Your task to perform on an android device: open app "Venmo" (install if not already installed) and go to login screen Image 0: 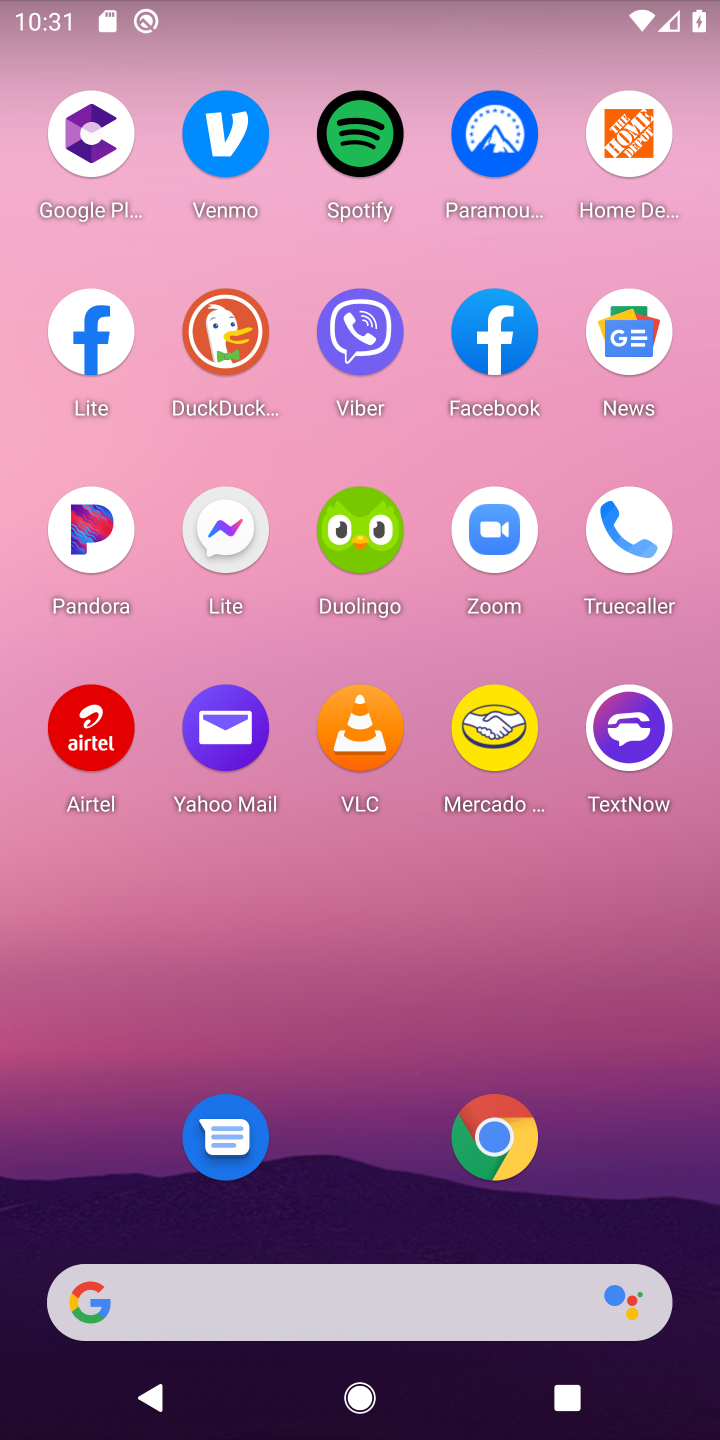
Step 0: press home button
Your task to perform on an android device: open app "Venmo" (install if not already installed) and go to login screen Image 1: 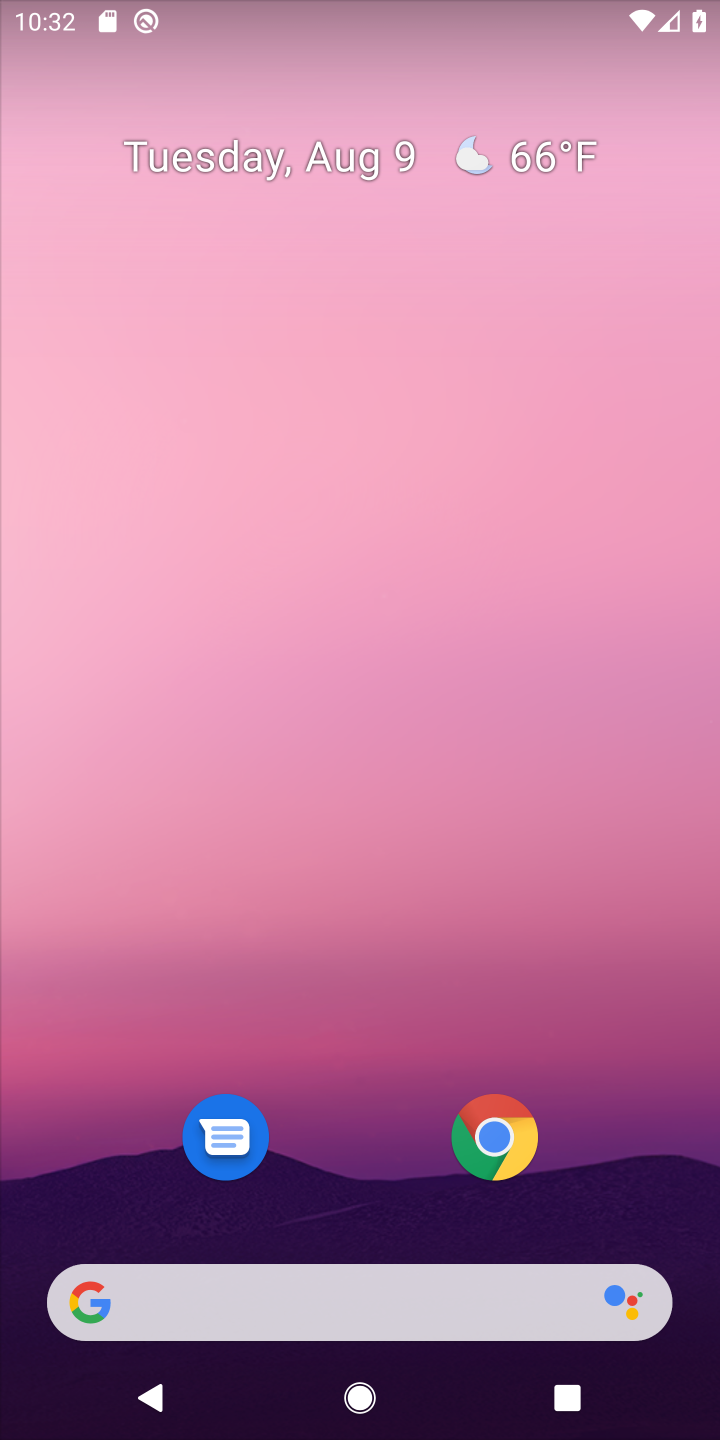
Step 1: drag from (390, 813) to (341, 254)
Your task to perform on an android device: open app "Venmo" (install if not already installed) and go to login screen Image 2: 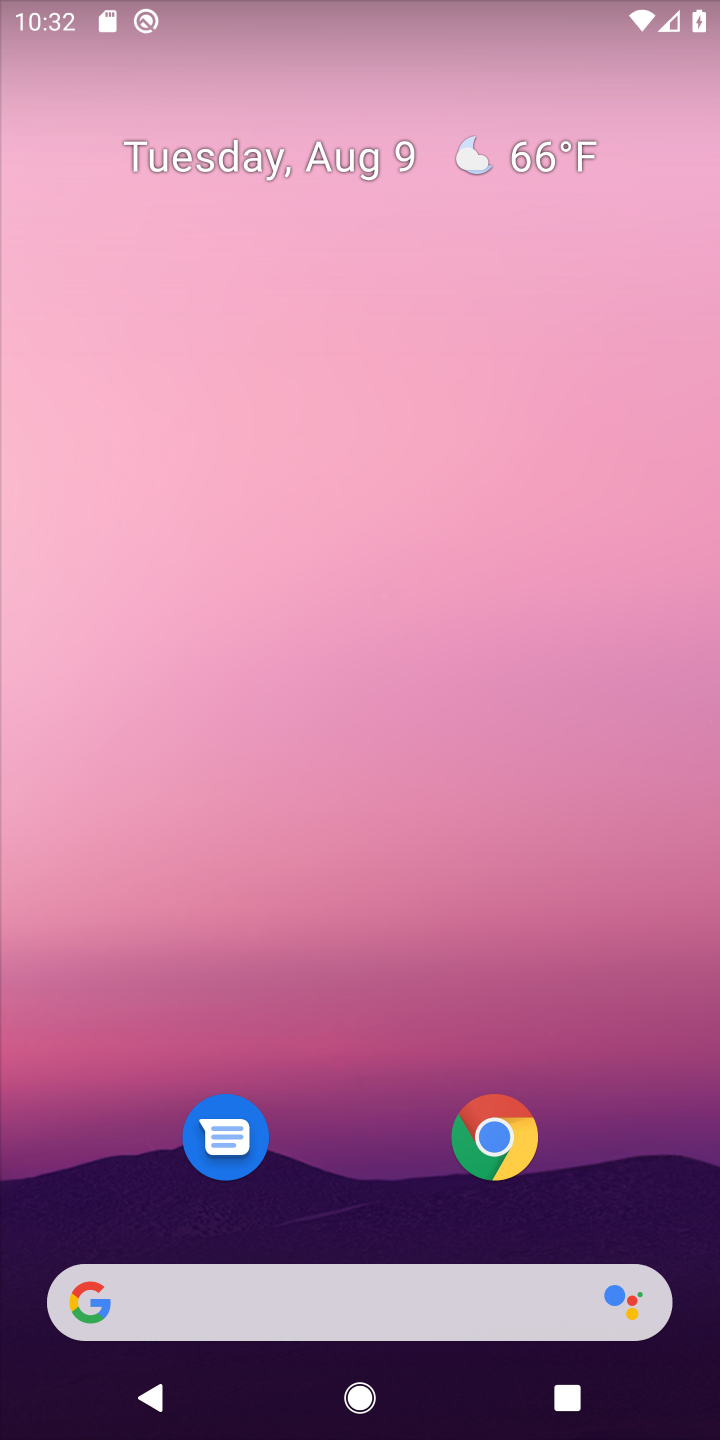
Step 2: drag from (350, 1142) to (331, 148)
Your task to perform on an android device: open app "Venmo" (install if not already installed) and go to login screen Image 3: 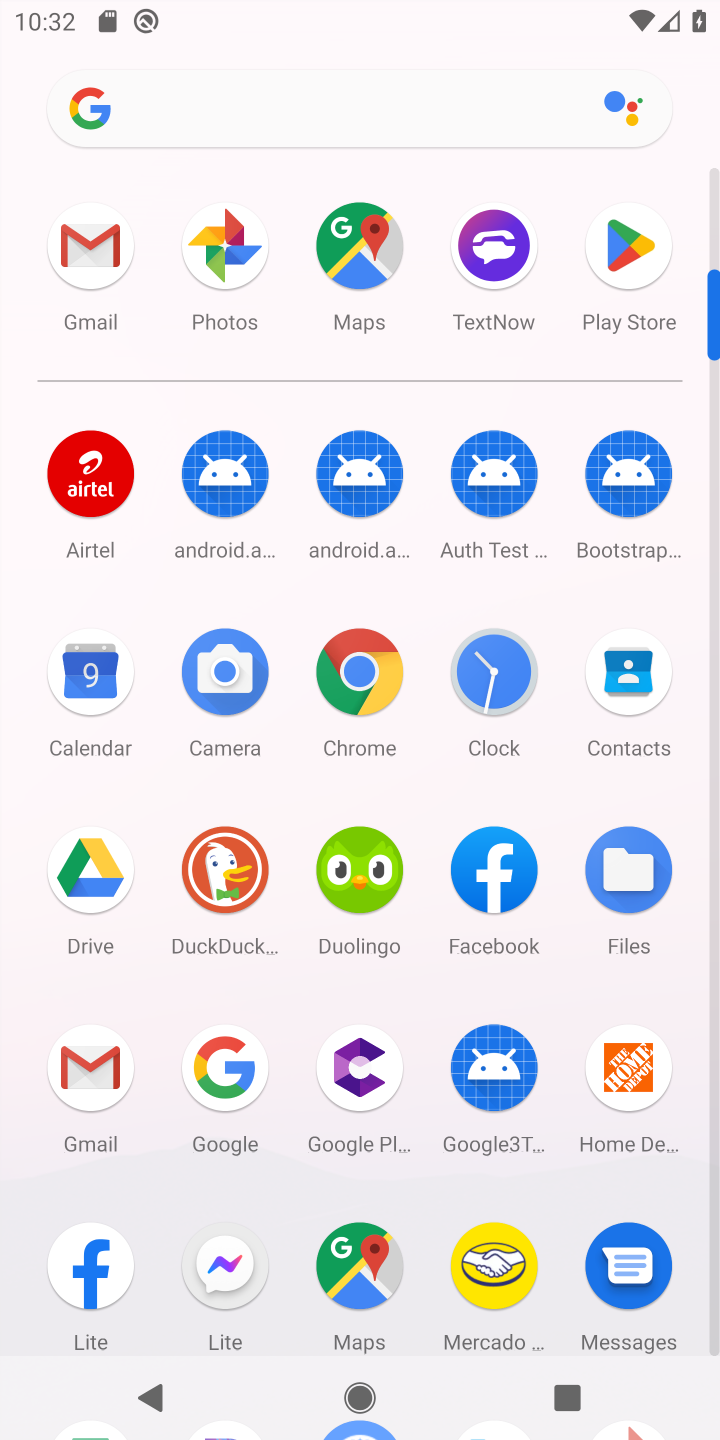
Step 3: click (631, 238)
Your task to perform on an android device: open app "Venmo" (install if not already installed) and go to login screen Image 4: 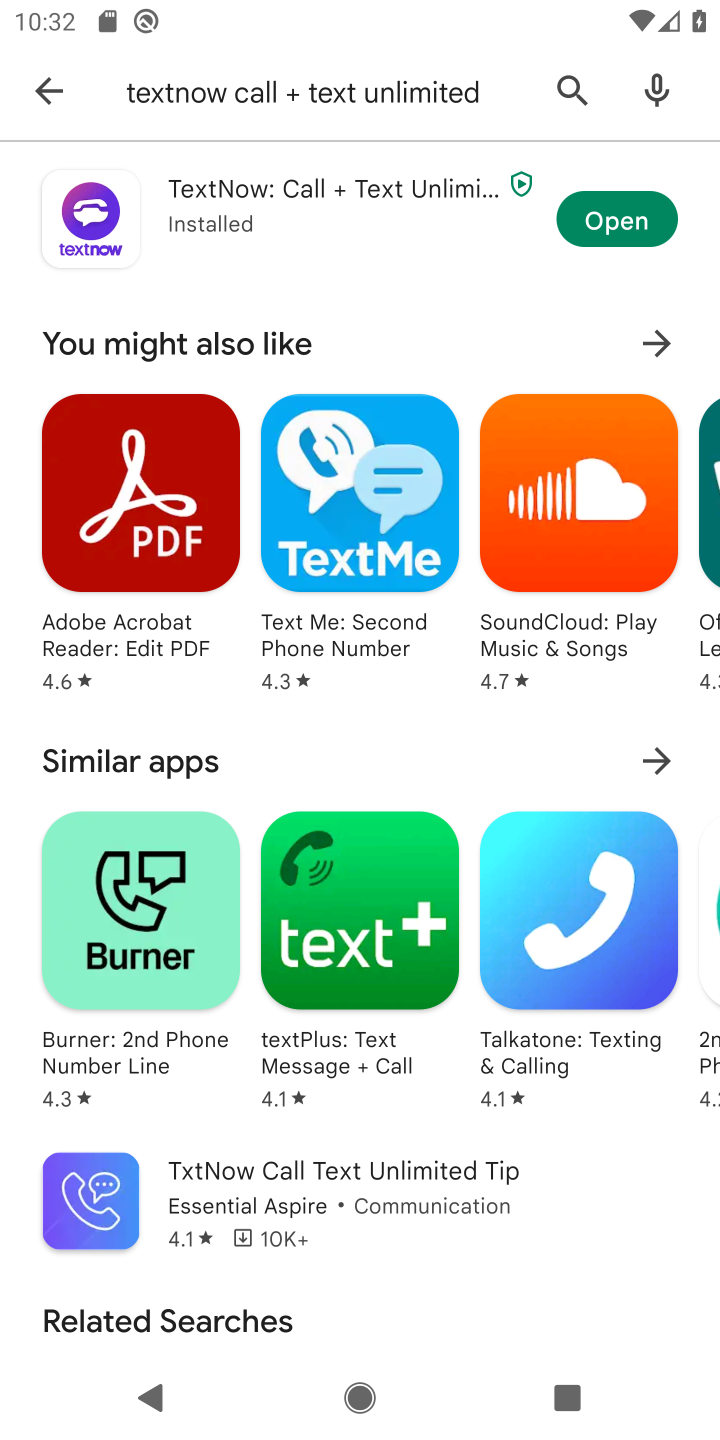
Step 4: click (565, 80)
Your task to perform on an android device: open app "Venmo" (install if not already installed) and go to login screen Image 5: 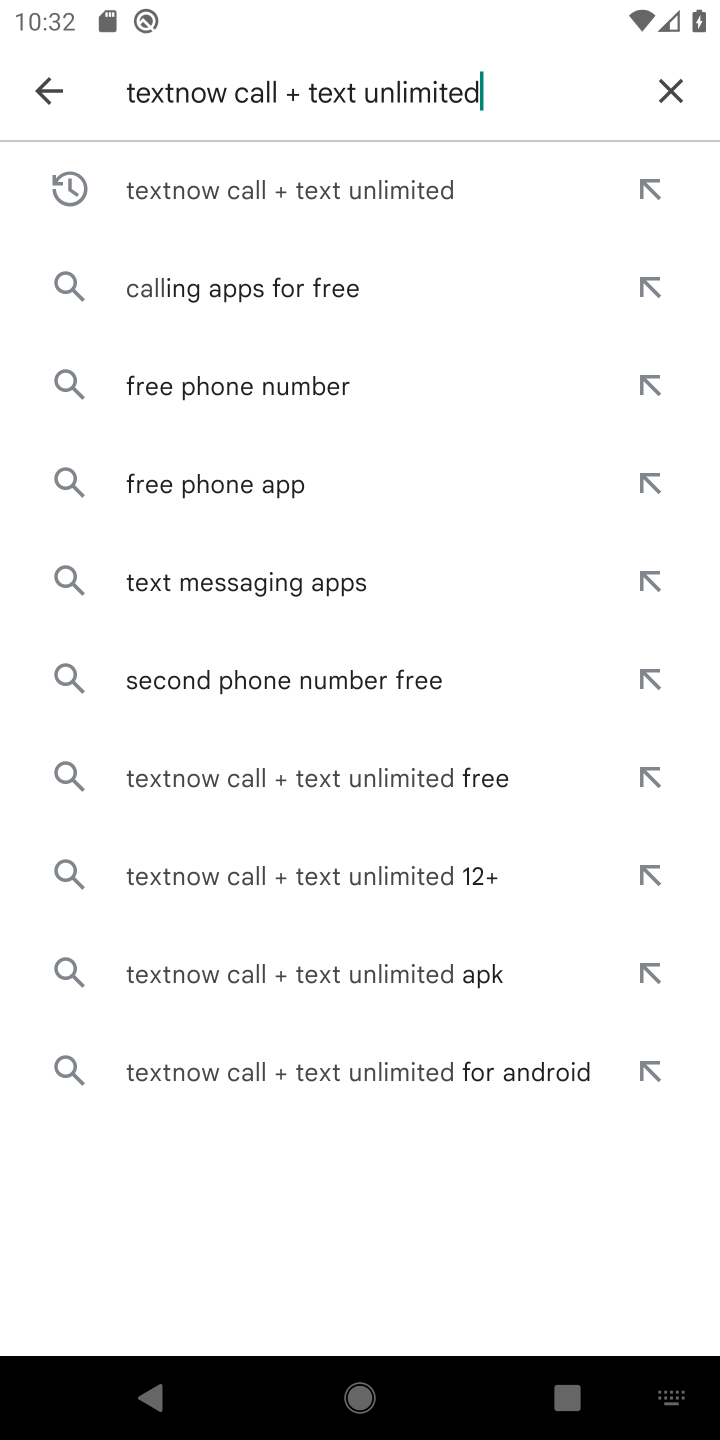
Step 5: click (658, 83)
Your task to perform on an android device: open app "Venmo" (install if not already installed) and go to login screen Image 6: 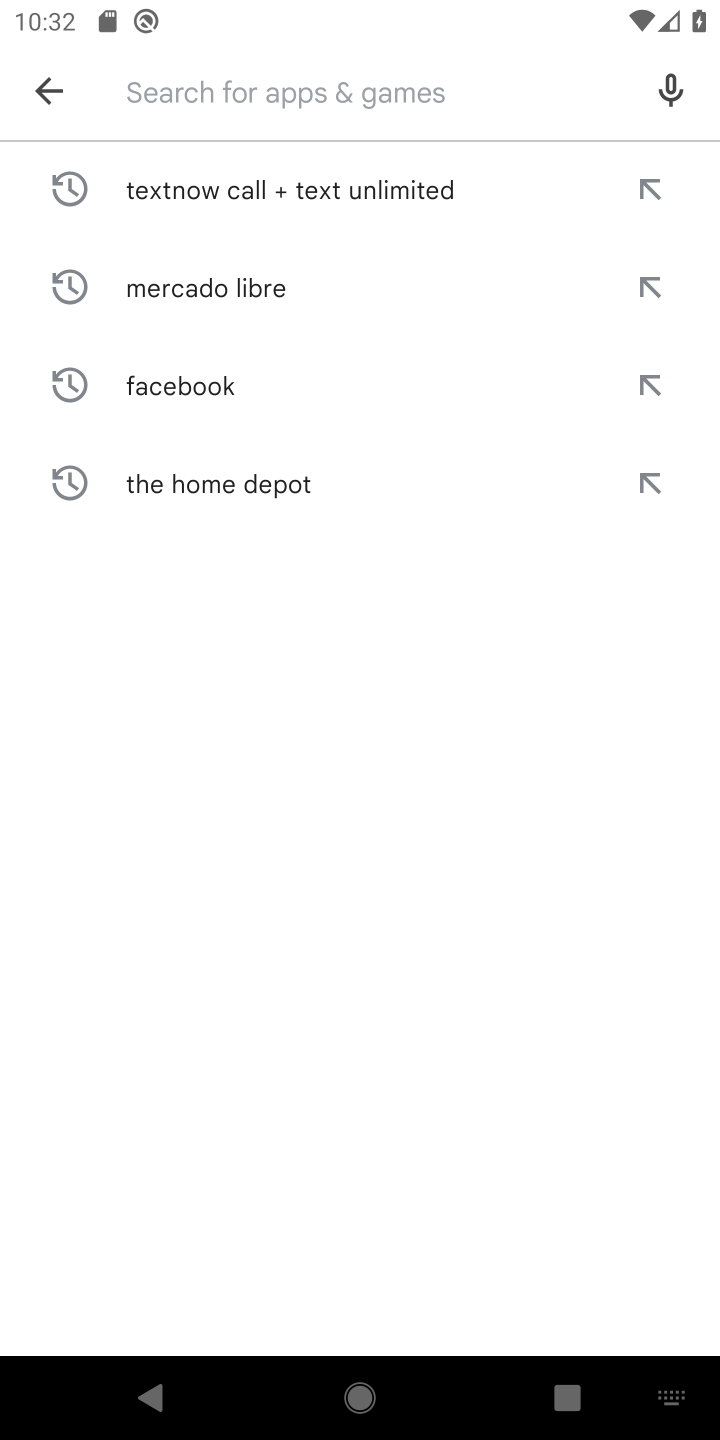
Step 6: type "Venmo"
Your task to perform on an android device: open app "Venmo" (install if not already installed) and go to login screen Image 7: 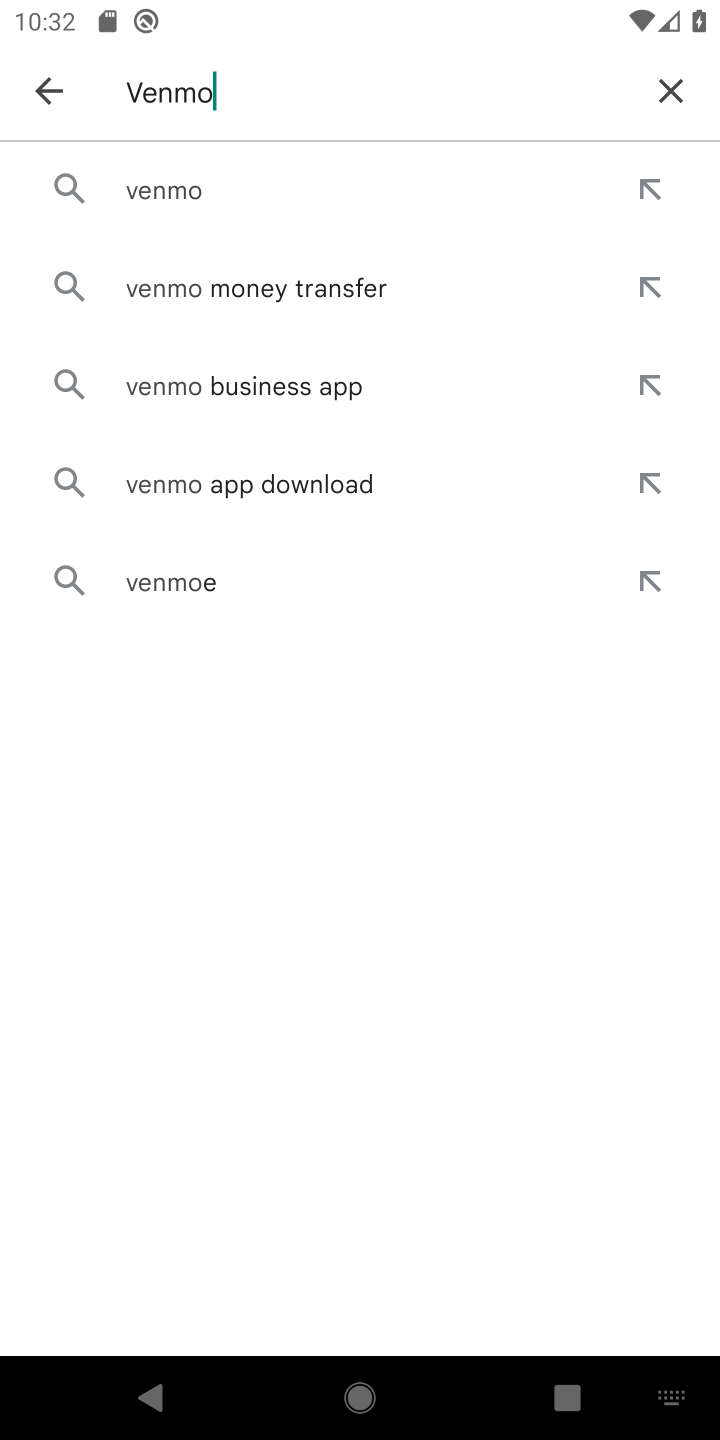
Step 7: type ""
Your task to perform on an android device: open app "Venmo" (install if not already installed) and go to login screen Image 8: 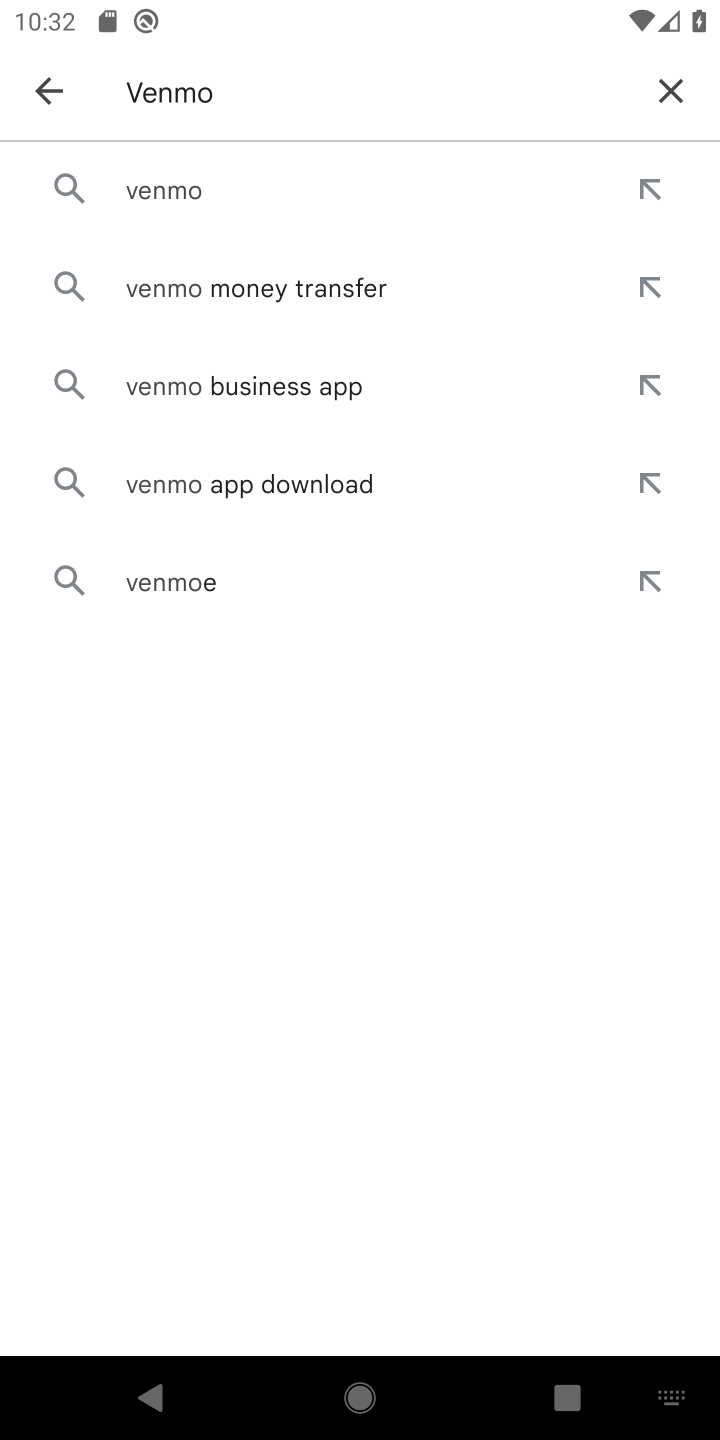
Step 8: click (151, 188)
Your task to perform on an android device: open app "Venmo" (install if not already installed) and go to login screen Image 9: 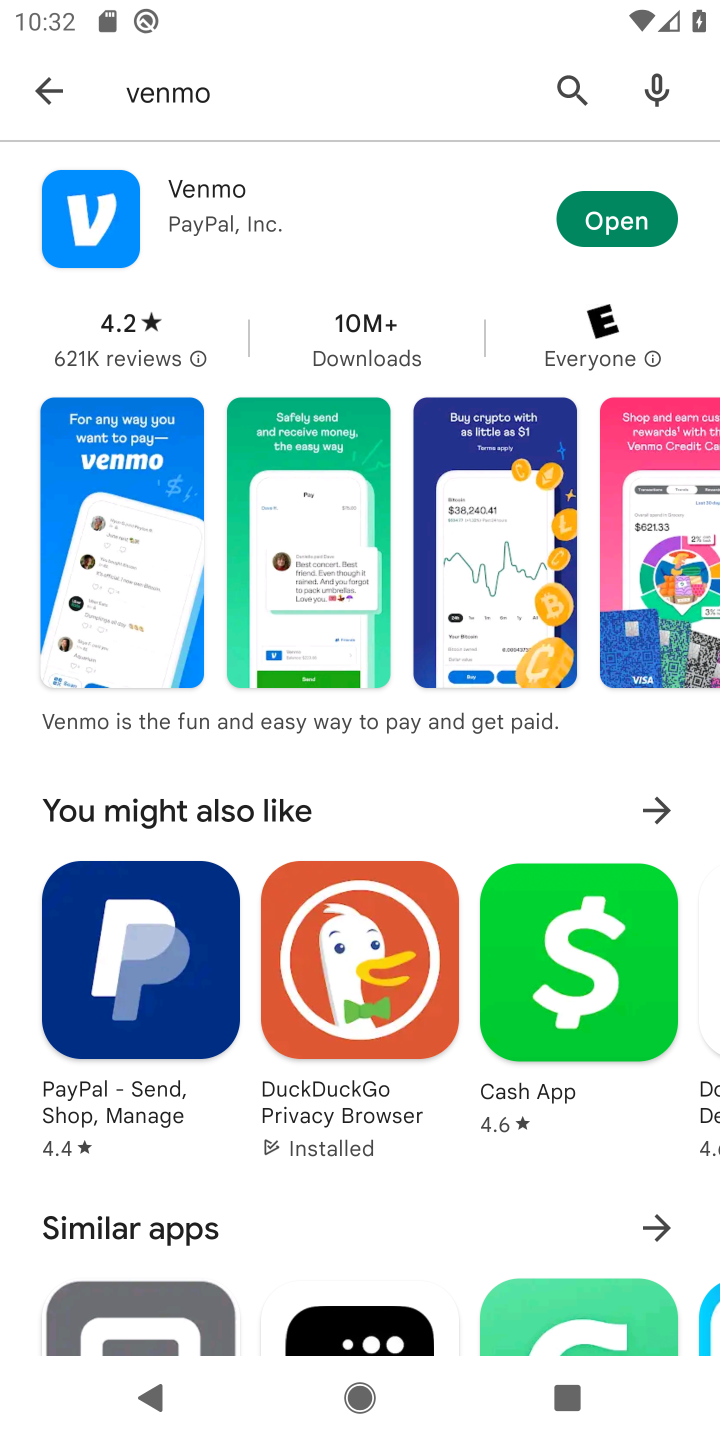
Step 9: click (644, 211)
Your task to perform on an android device: open app "Venmo" (install if not already installed) and go to login screen Image 10: 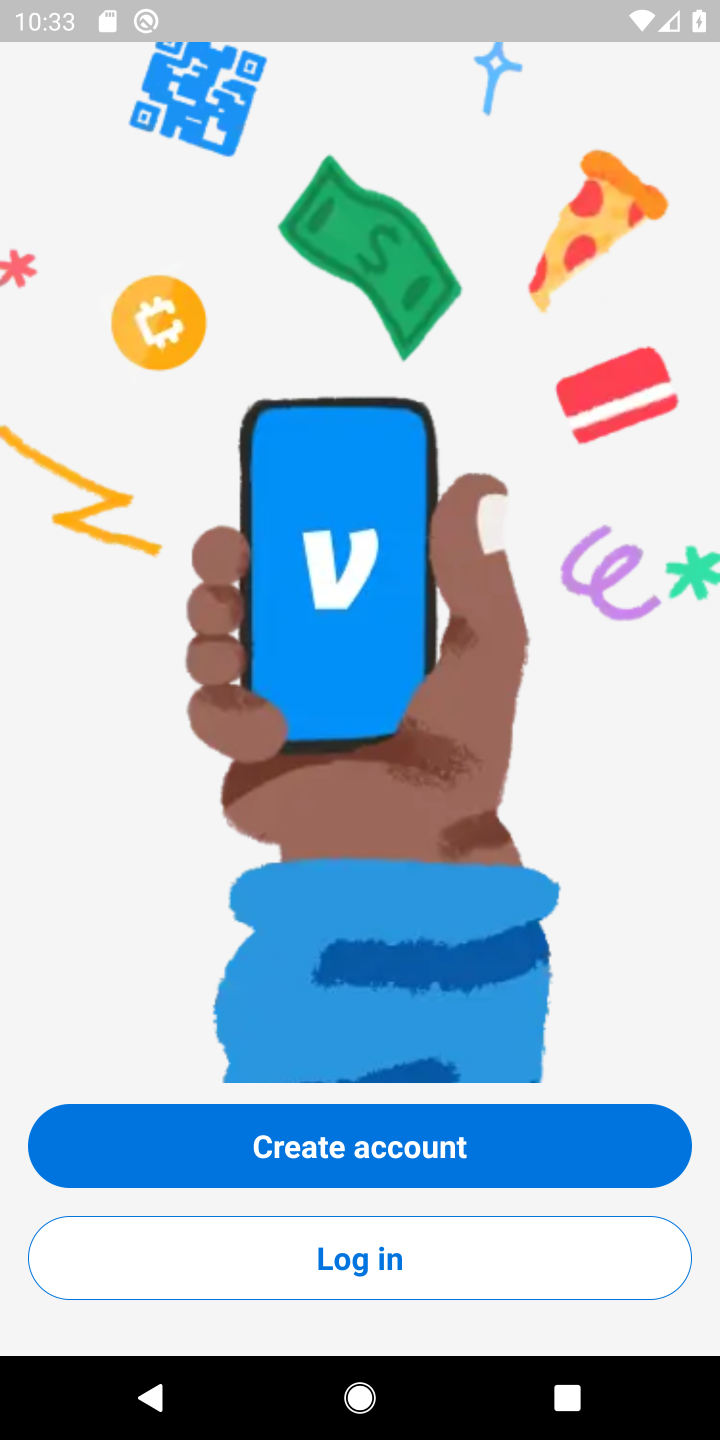
Step 10: task complete